Your task to perform on an android device: toggle notification dots Image 0: 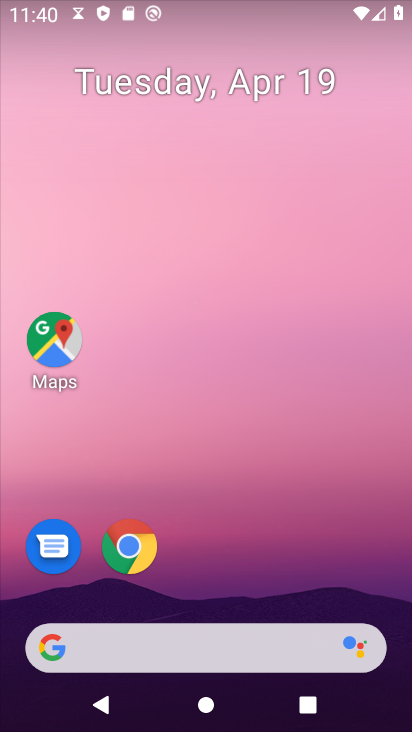
Step 0: drag from (390, 597) to (293, 22)
Your task to perform on an android device: toggle notification dots Image 1: 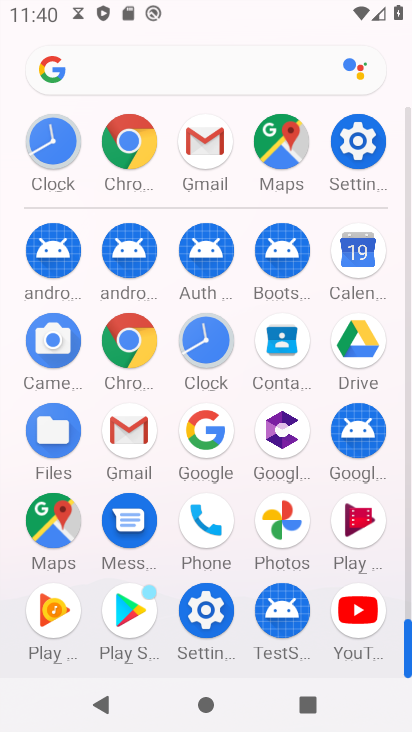
Step 1: click (205, 600)
Your task to perform on an android device: toggle notification dots Image 2: 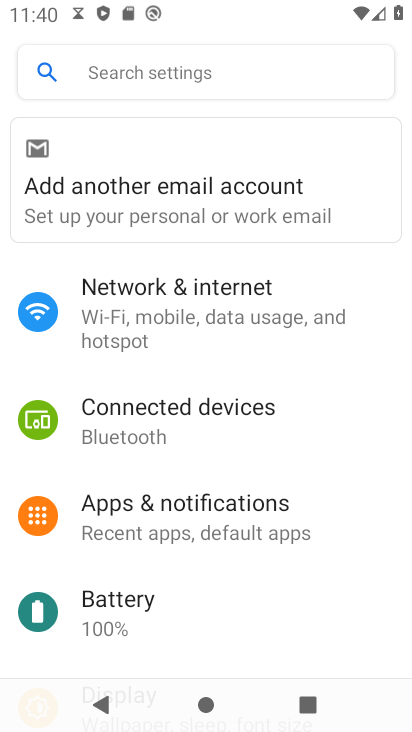
Step 2: click (219, 491)
Your task to perform on an android device: toggle notification dots Image 3: 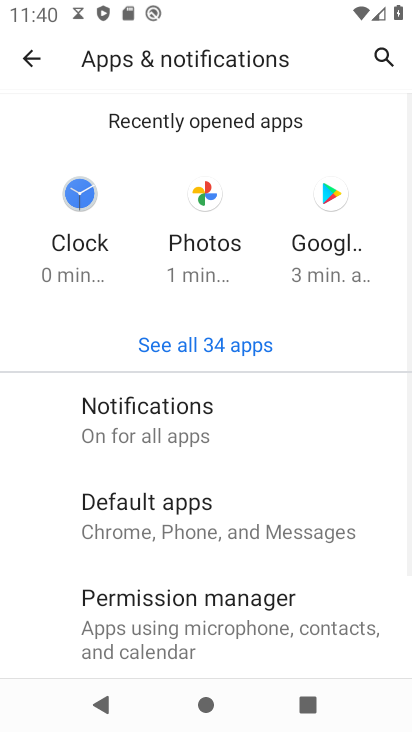
Step 3: click (218, 415)
Your task to perform on an android device: toggle notification dots Image 4: 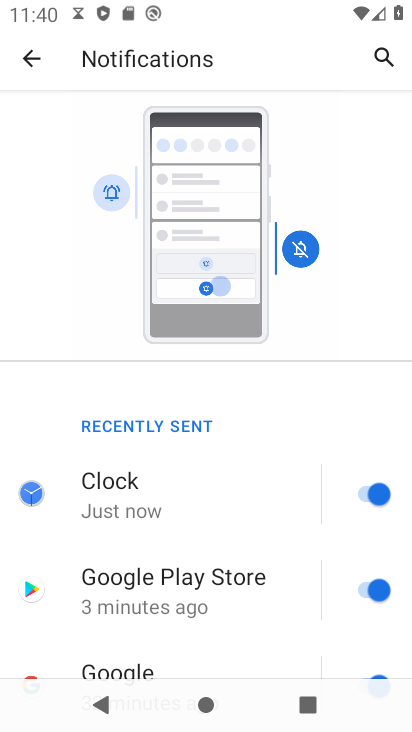
Step 4: drag from (240, 589) to (249, 142)
Your task to perform on an android device: toggle notification dots Image 5: 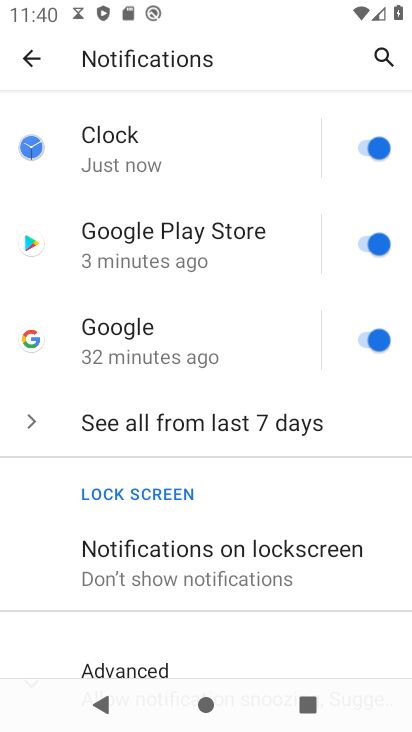
Step 5: drag from (240, 470) to (235, 115)
Your task to perform on an android device: toggle notification dots Image 6: 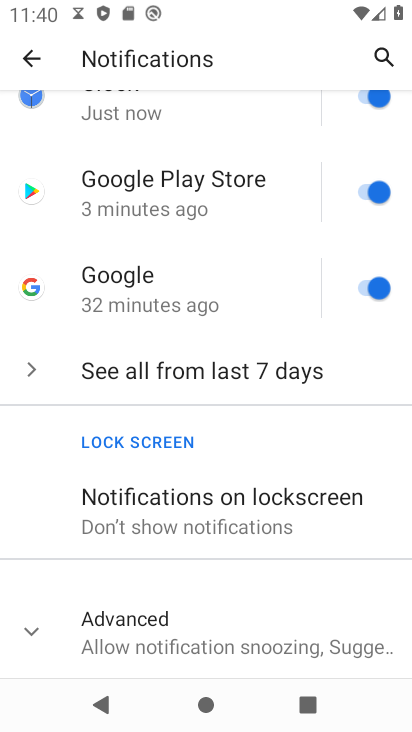
Step 6: click (157, 635)
Your task to perform on an android device: toggle notification dots Image 7: 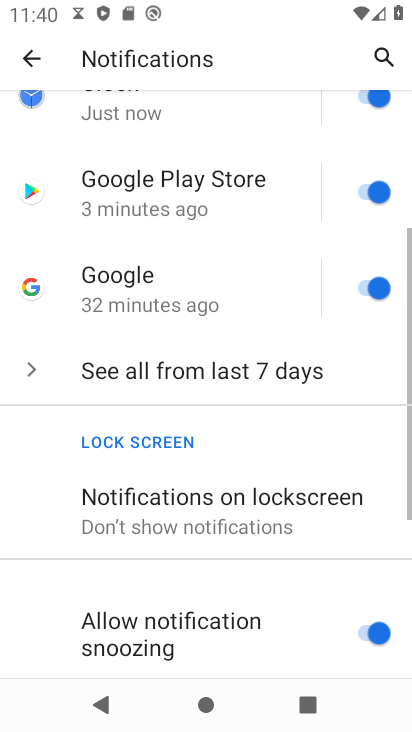
Step 7: drag from (220, 485) to (236, 210)
Your task to perform on an android device: toggle notification dots Image 8: 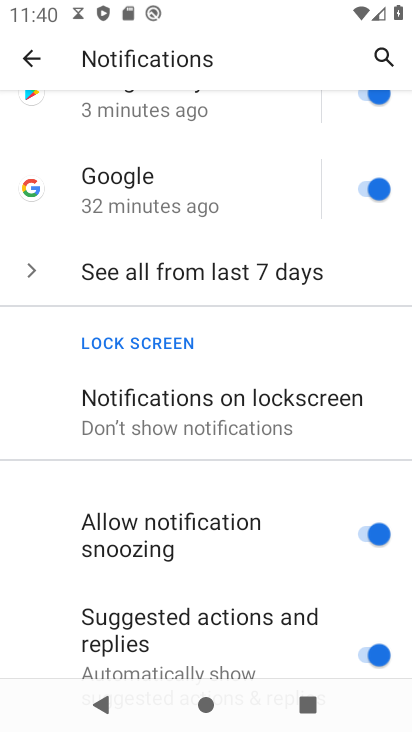
Step 8: drag from (225, 600) to (233, 201)
Your task to perform on an android device: toggle notification dots Image 9: 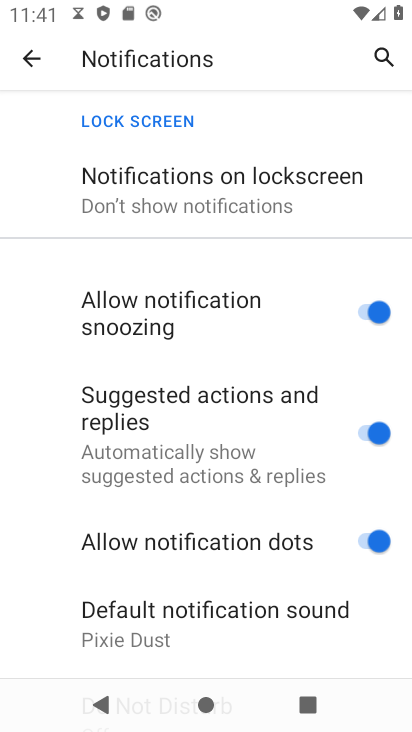
Step 9: click (362, 539)
Your task to perform on an android device: toggle notification dots Image 10: 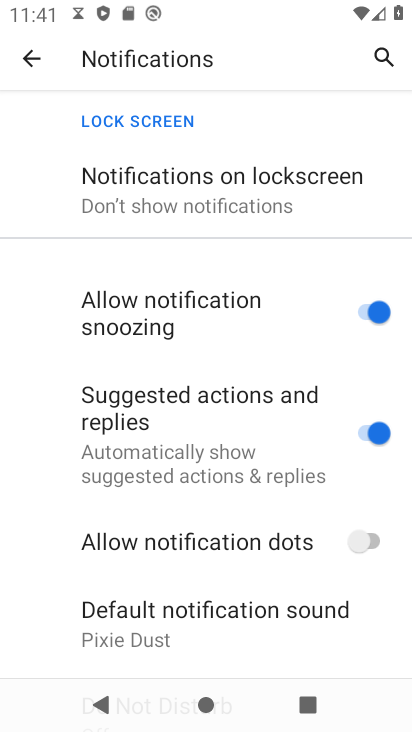
Step 10: task complete